Your task to perform on an android device: manage bookmarks in the chrome app Image 0: 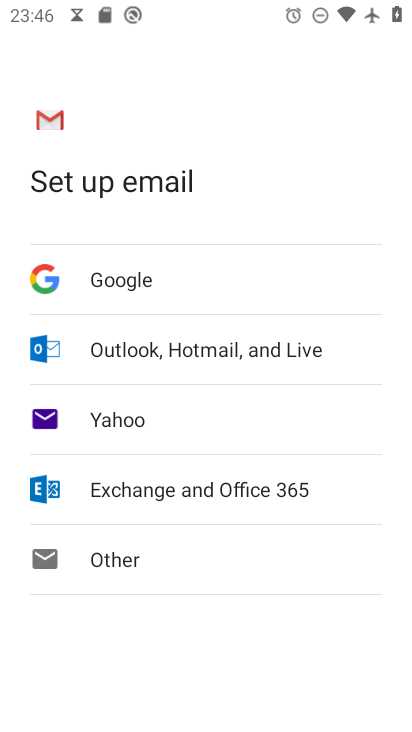
Step 0: press home button
Your task to perform on an android device: manage bookmarks in the chrome app Image 1: 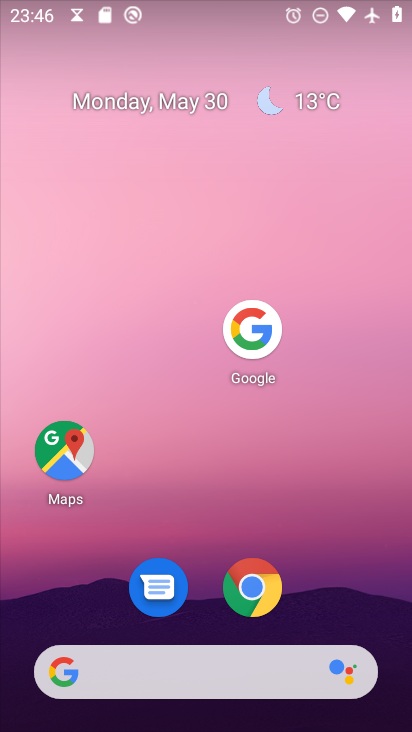
Step 1: click (263, 593)
Your task to perform on an android device: manage bookmarks in the chrome app Image 2: 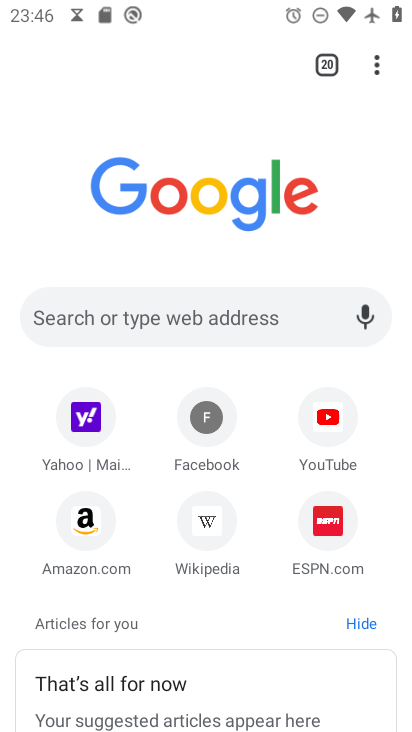
Step 2: drag from (374, 68) to (200, 237)
Your task to perform on an android device: manage bookmarks in the chrome app Image 3: 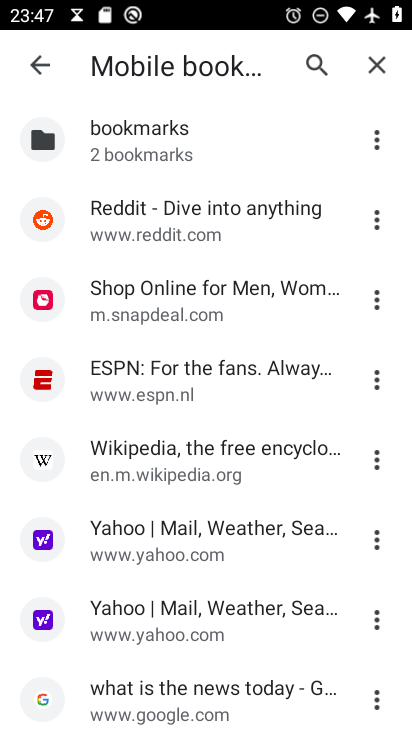
Step 3: click (378, 221)
Your task to perform on an android device: manage bookmarks in the chrome app Image 4: 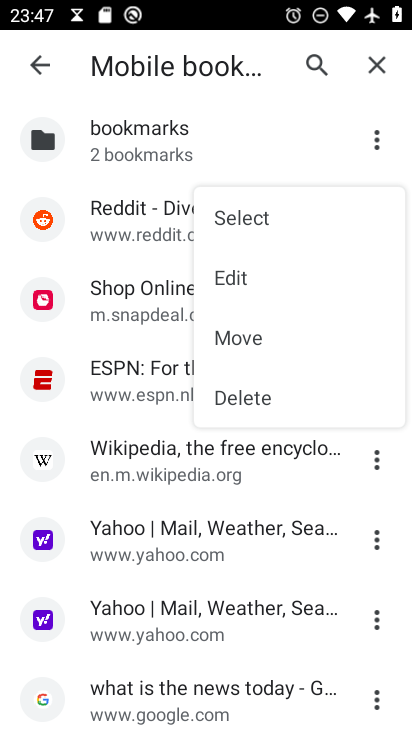
Step 4: click (228, 335)
Your task to perform on an android device: manage bookmarks in the chrome app Image 5: 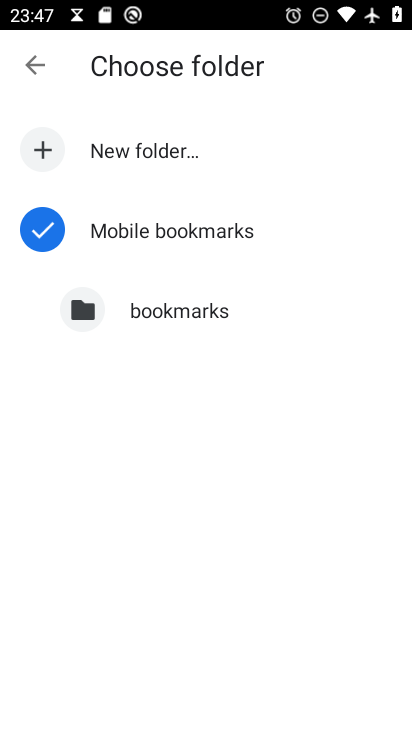
Step 5: click (138, 312)
Your task to perform on an android device: manage bookmarks in the chrome app Image 6: 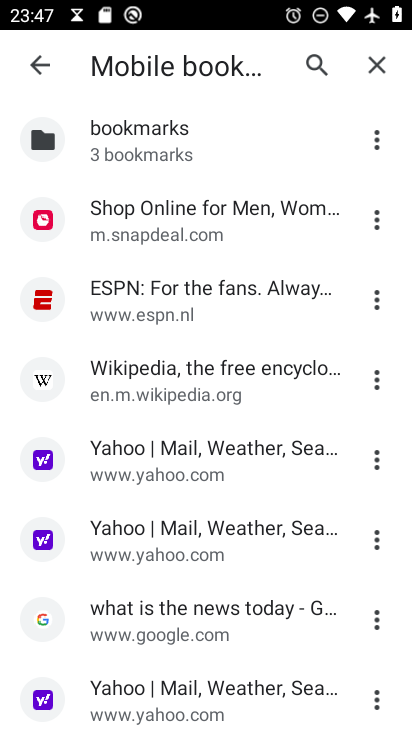
Step 6: task complete